Your task to perform on an android device: What's the weather today? Image 0: 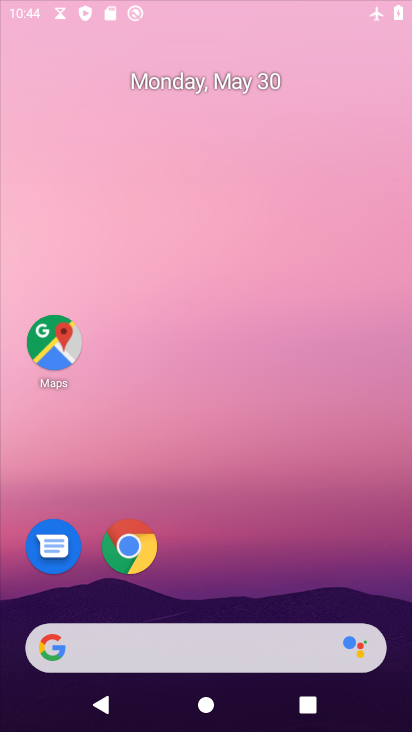
Step 0: press home button
Your task to perform on an android device: What's the weather today? Image 1: 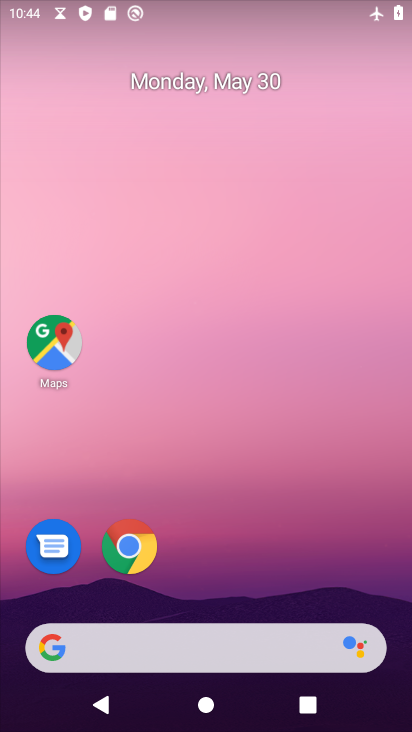
Step 1: task complete